Your task to perform on an android device: open sync settings in chrome Image 0: 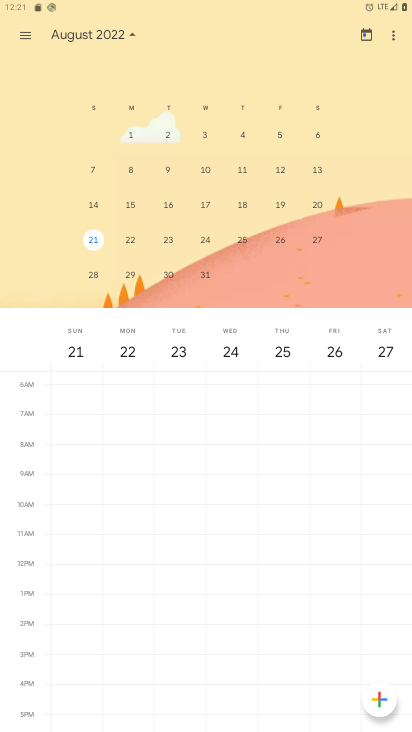
Step 0: press home button
Your task to perform on an android device: open sync settings in chrome Image 1: 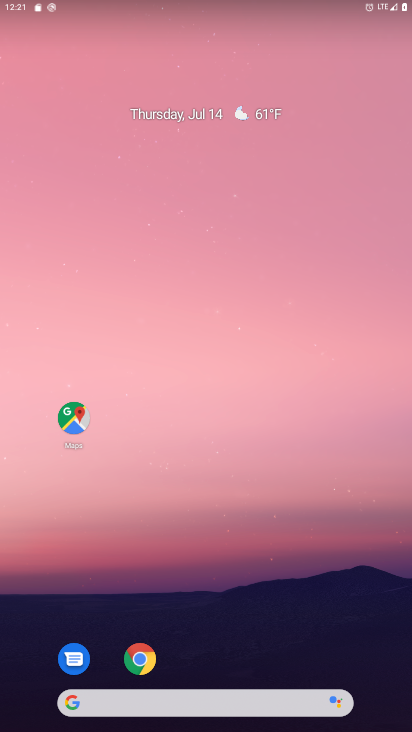
Step 1: click (139, 657)
Your task to perform on an android device: open sync settings in chrome Image 2: 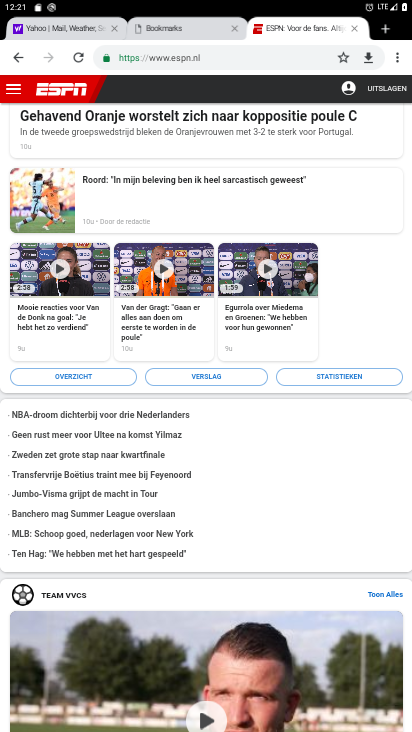
Step 2: click (354, 29)
Your task to perform on an android device: open sync settings in chrome Image 3: 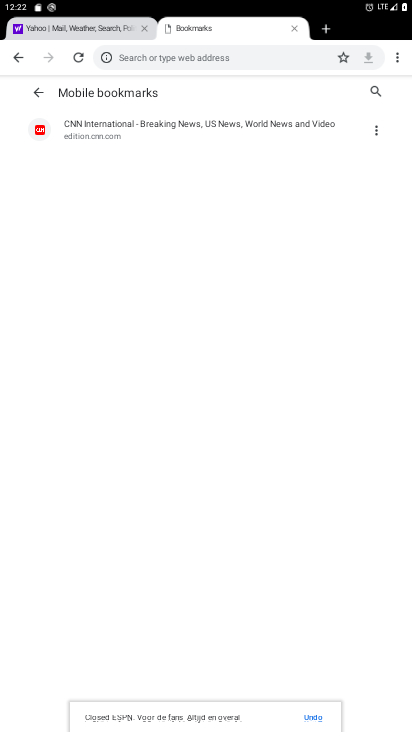
Step 3: click (297, 29)
Your task to perform on an android device: open sync settings in chrome Image 4: 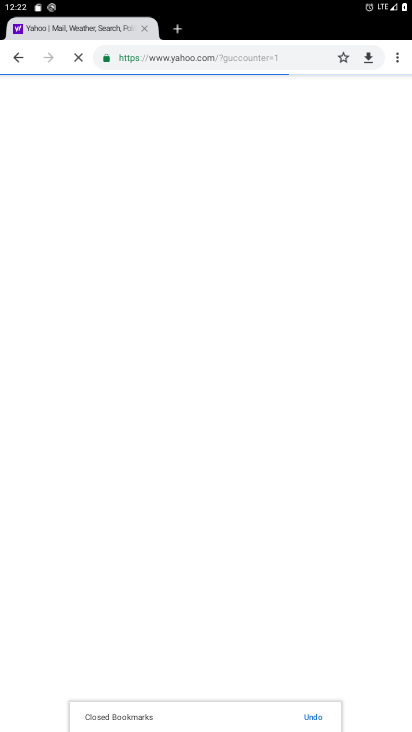
Step 4: click (179, 28)
Your task to perform on an android device: open sync settings in chrome Image 5: 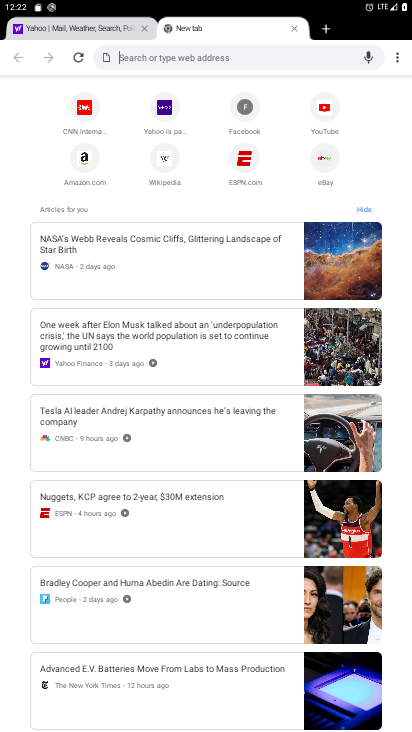
Step 5: click (396, 55)
Your task to perform on an android device: open sync settings in chrome Image 6: 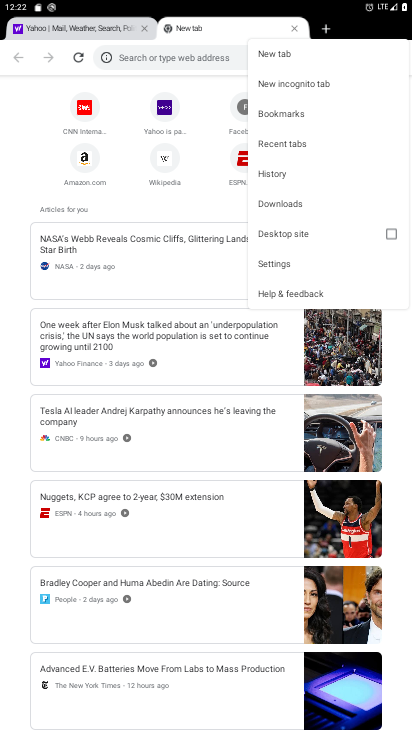
Step 6: click (294, 261)
Your task to perform on an android device: open sync settings in chrome Image 7: 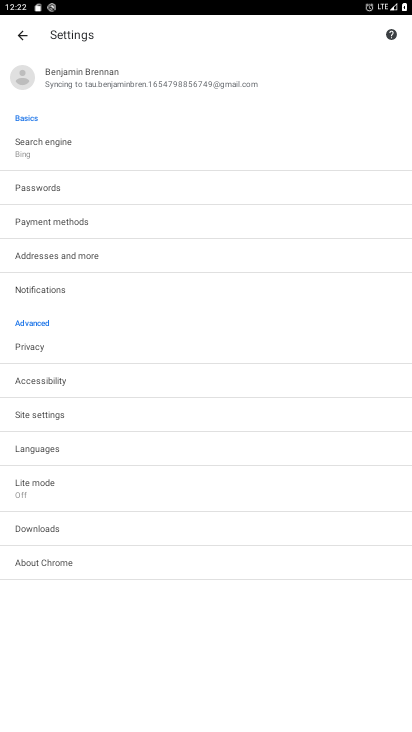
Step 7: click (125, 71)
Your task to perform on an android device: open sync settings in chrome Image 8: 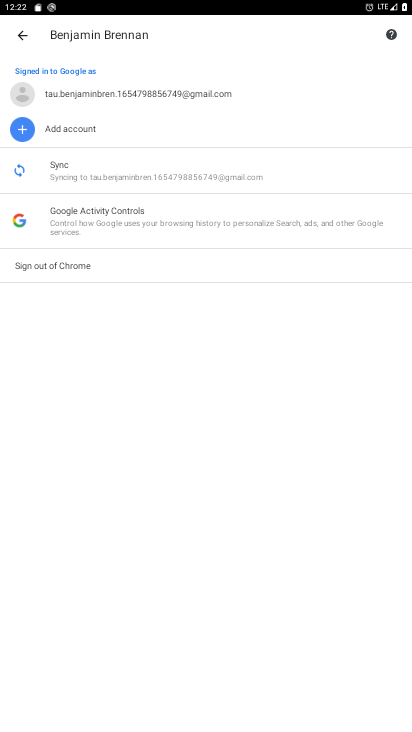
Step 8: click (90, 169)
Your task to perform on an android device: open sync settings in chrome Image 9: 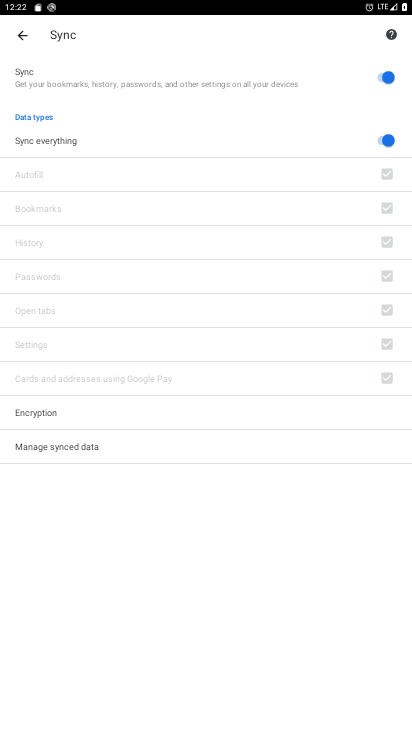
Step 9: task complete